Your task to perform on an android device: Search for sushi restaurants on Maps Image 0: 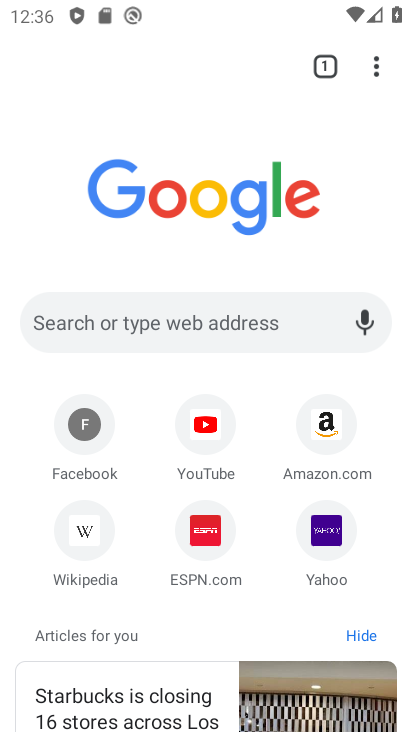
Step 0: press home button
Your task to perform on an android device: Search for sushi restaurants on Maps Image 1: 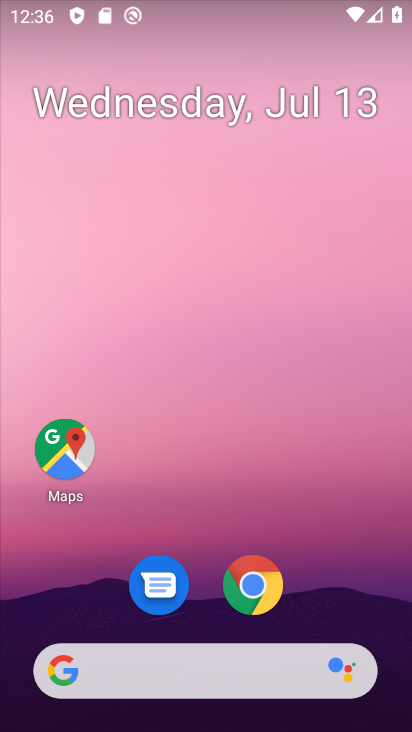
Step 1: click (70, 451)
Your task to perform on an android device: Search for sushi restaurants on Maps Image 2: 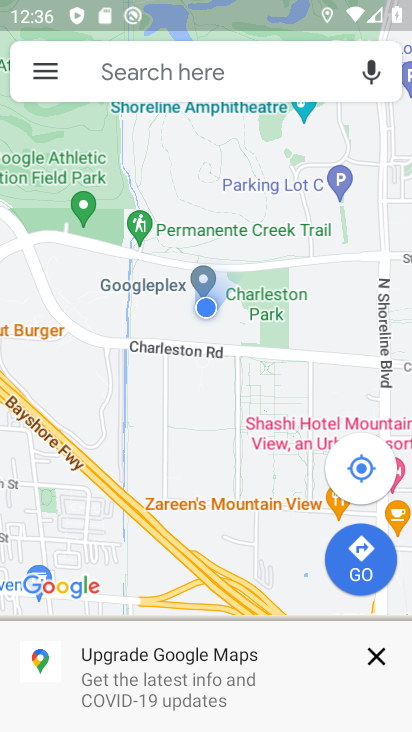
Step 2: click (176, 73)
Your task to perform on an android device: Search for sushi restaurants on Maps Image 3: 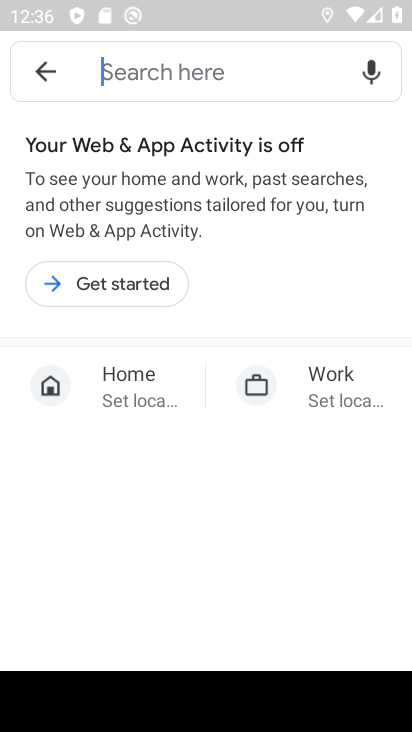
Step 3: type "sushi restaurants"
Your task to perform on an android device: Search for sushi restaurants on Maps Image 4: 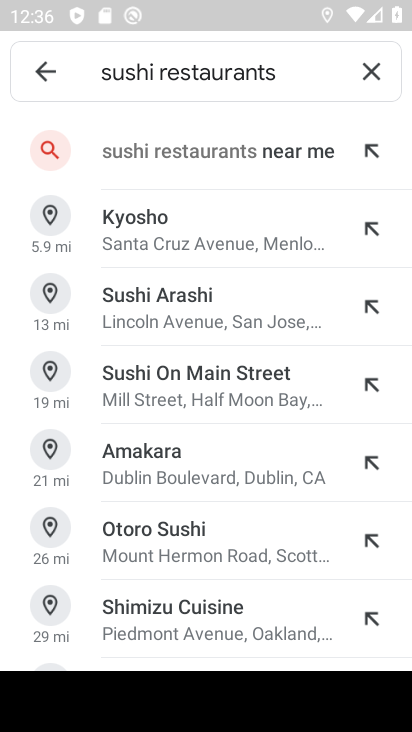
Step 4: click (239, 146)
Your task to perform on an android device: Search for sushi restaurants on Maps Image 5: 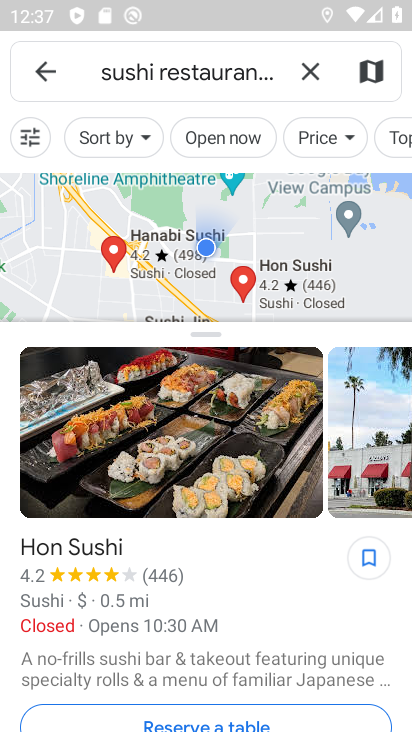
Step 5: task complete